Your task to perform on an android device: Look up the best rated 3d printer on Ali Express Image 0: 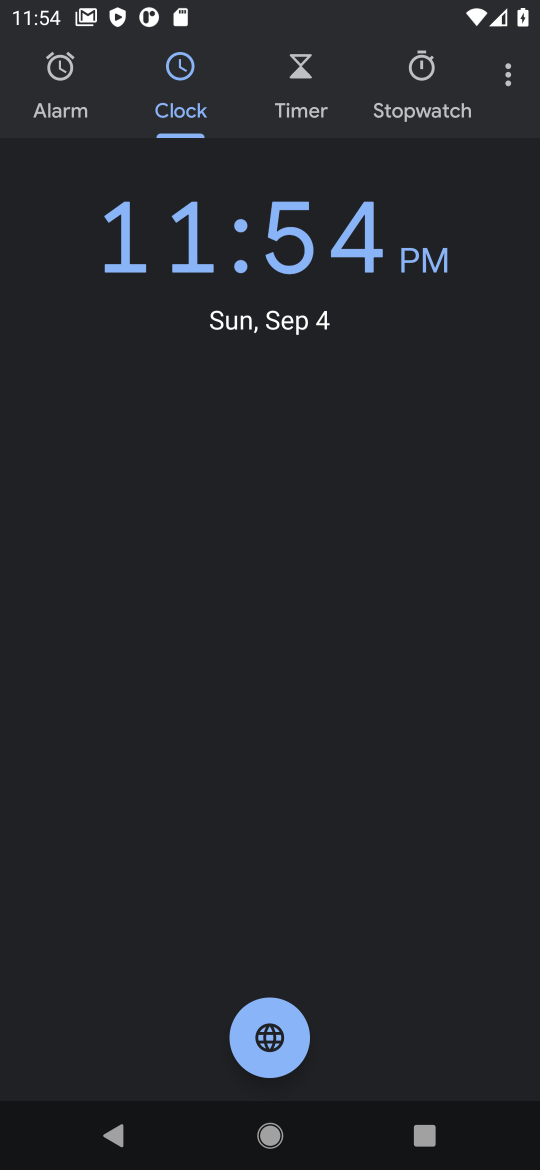
Step 0: press back button
Your task to perform on an android device: Look up the best rated 3d printer on Ali Express Image 1: 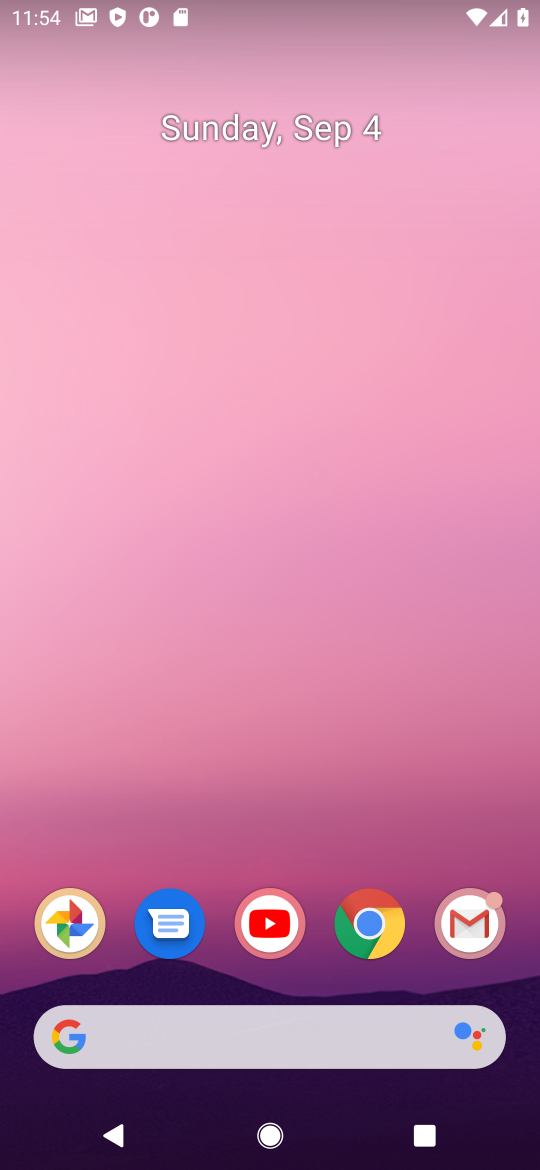
Step 1: click (359, 919)
Your task to perform on an android device: Look up the best rated 3d printer on Ali Express Image 2: 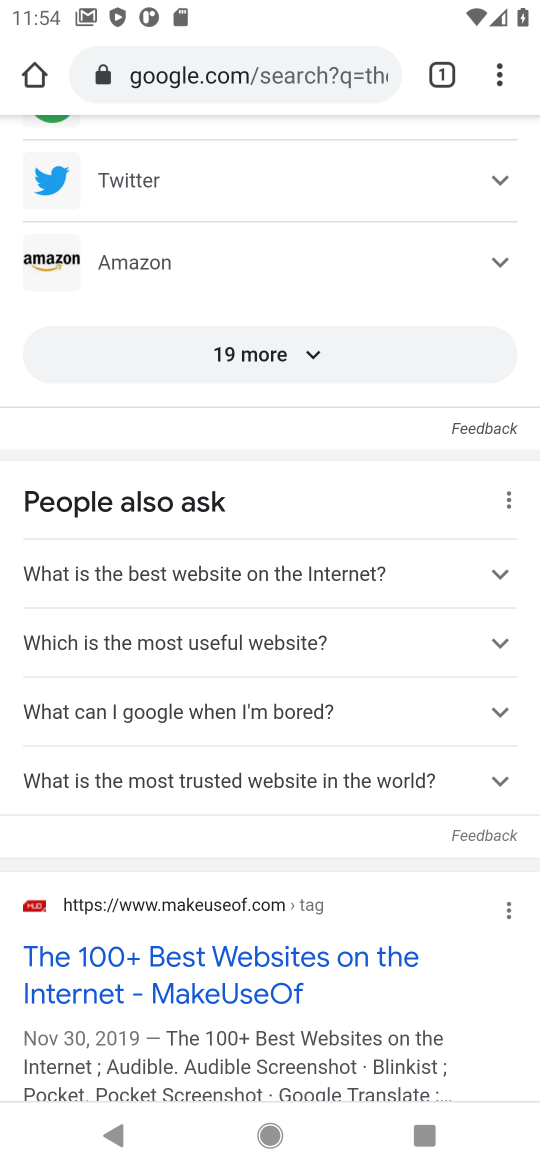
Step 2: click (249, 77)
Your task to perform on an android device: Look up the best rated 3d printer on Ali Express Image 3: 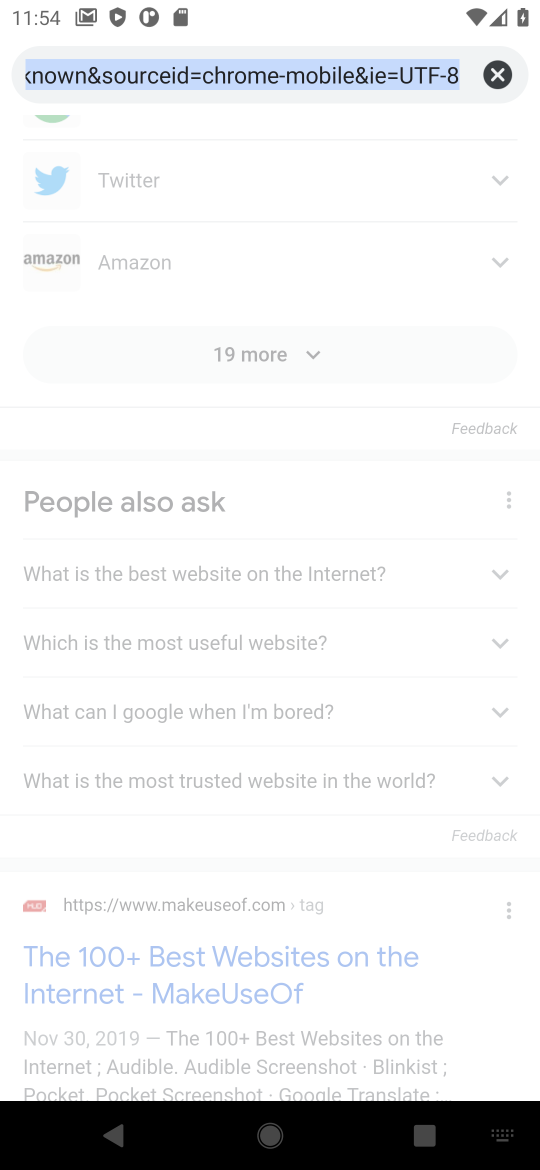
Step 3: click (497, 82)
Your task to perform on an android device: Look up the best rated 3d printer on Ali Express Image 4: 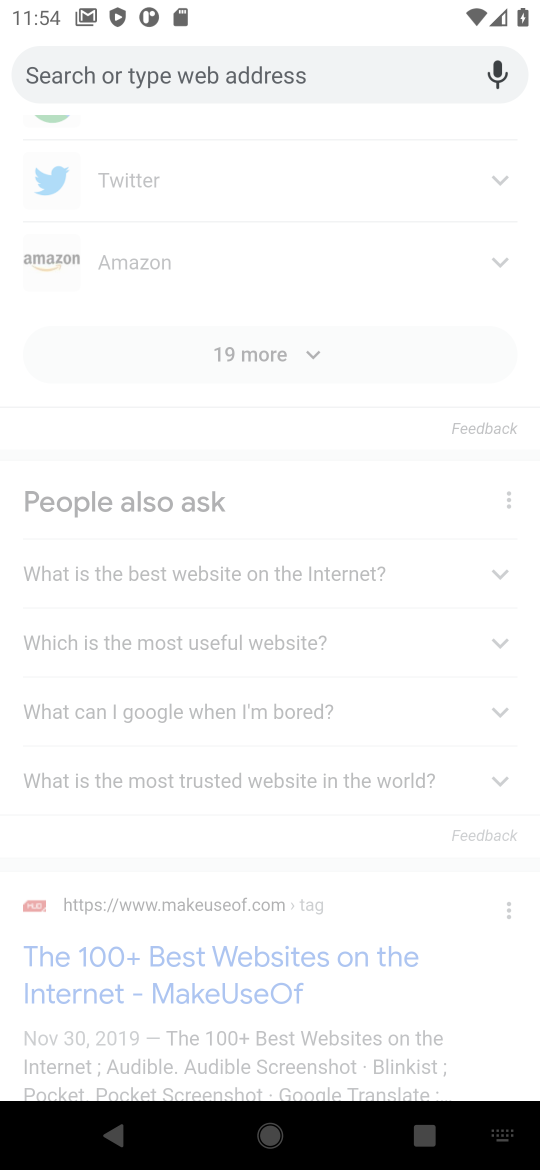
Step 4: type " the best rated 3d printer on Ali Express"
Your task to perform on an android device: Look up the best rated 3d printer on Ali Express Image 5: 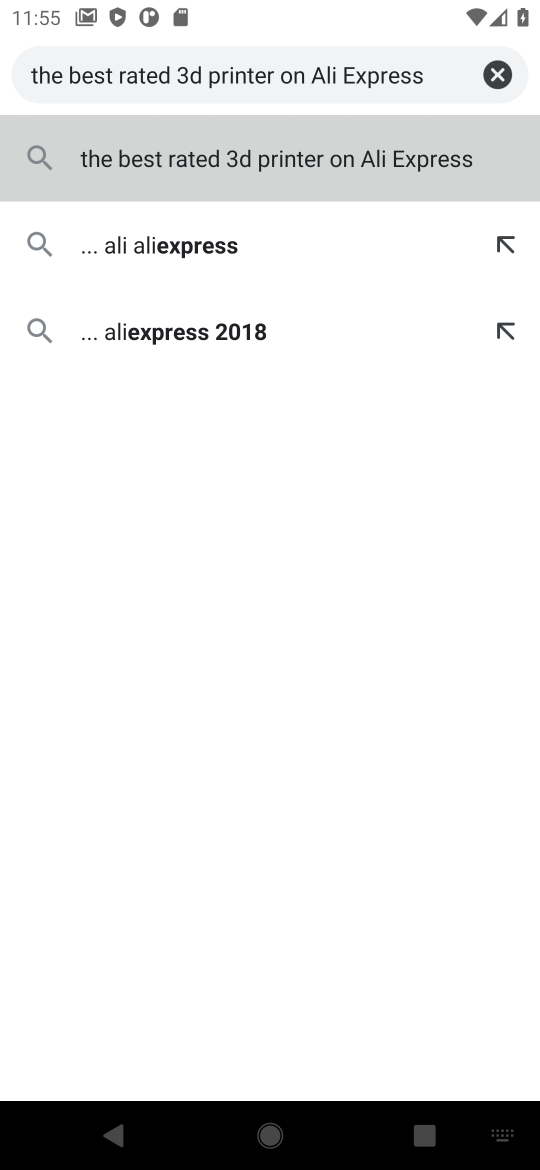
Step 5: click (384, 144)
Your task to perform on an android device: Look up the best rated 3d printer on Ali Express Image 6: 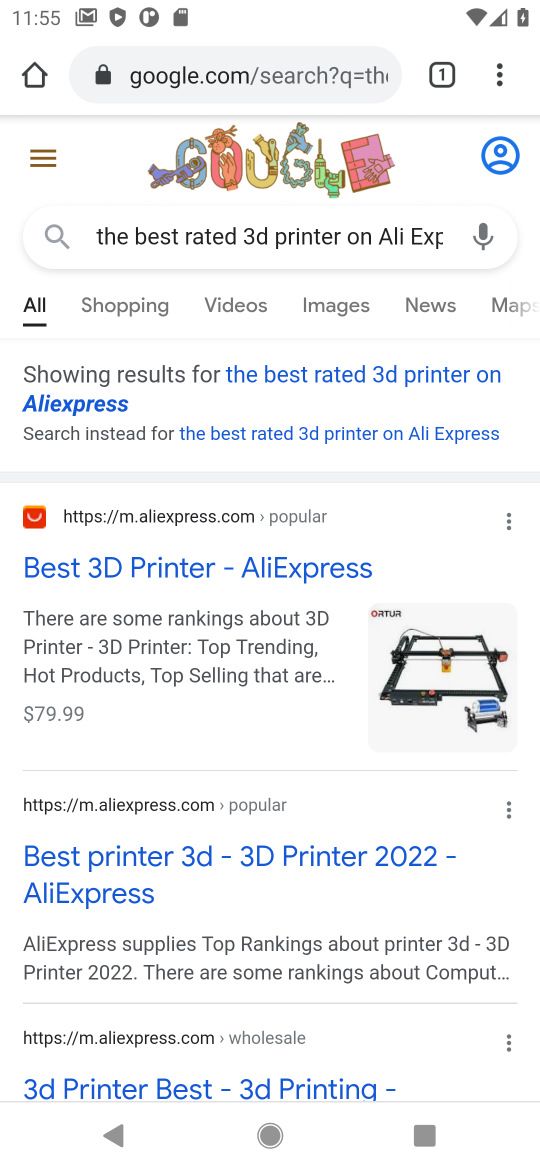
Step 6: task complete